Your task to perform on an android device: install app "Booking.com: Hotels and more" Image 0: 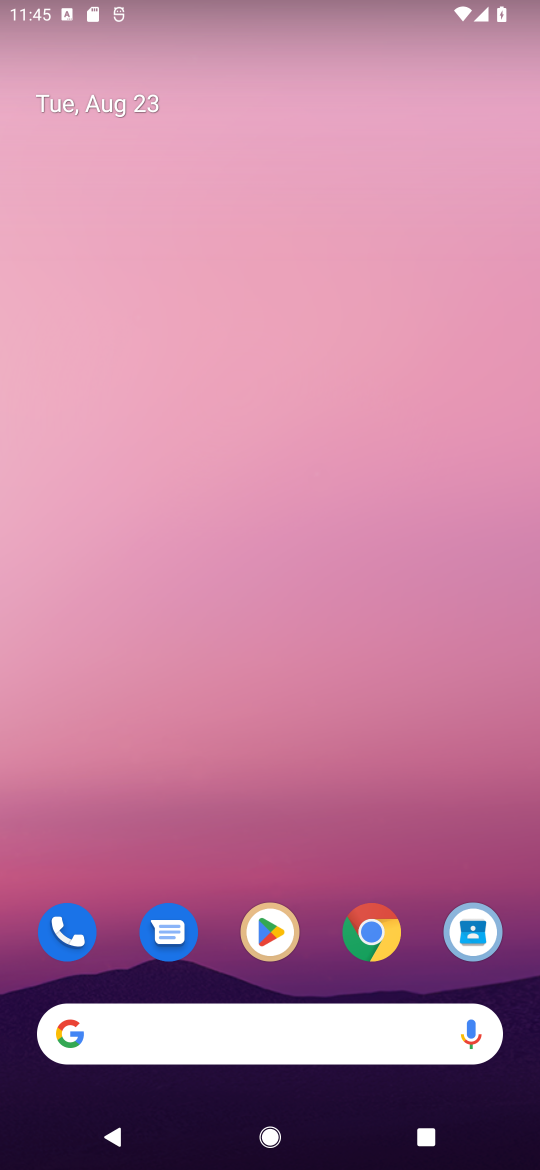
Step 0: click (254, 940)
Your task to perform on an android device: install app "Booking.com: Hotels and more" Image 1: 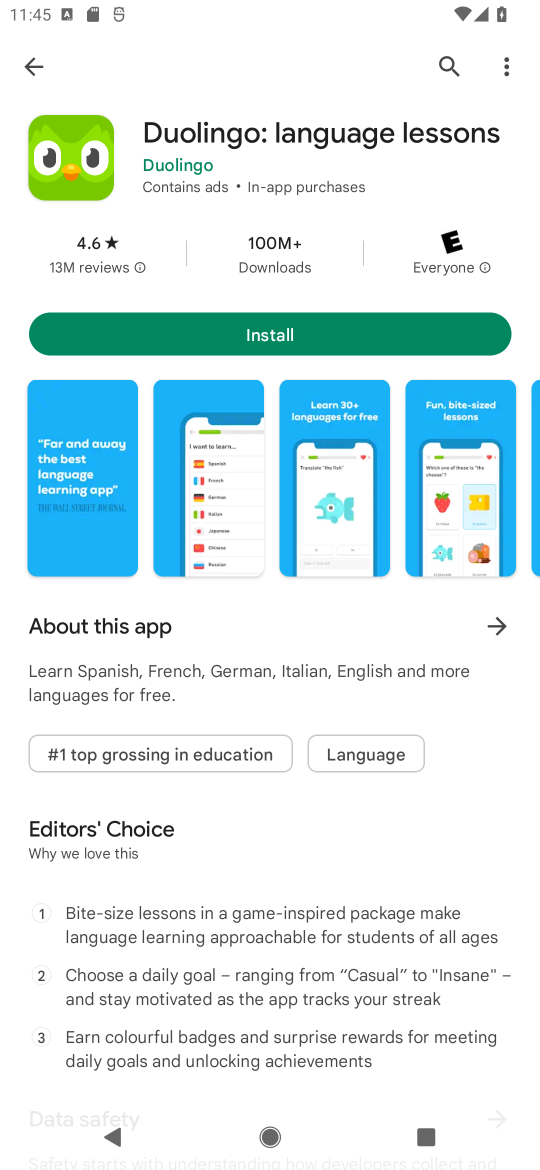
Step 1: click (441, 53)
Your task to perform on an android device: install app "Booking.com: Hotels and more" Image 2: 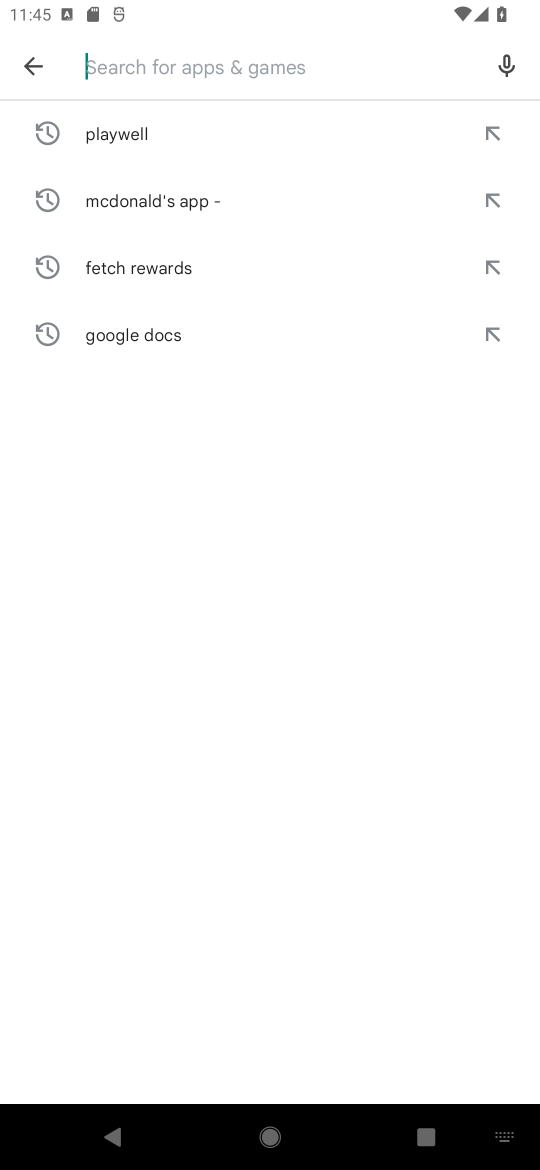
Step 2: click (186, 74)
Your task to perform on an android device: install app "Booking.com: Hotels and more" Image 3: 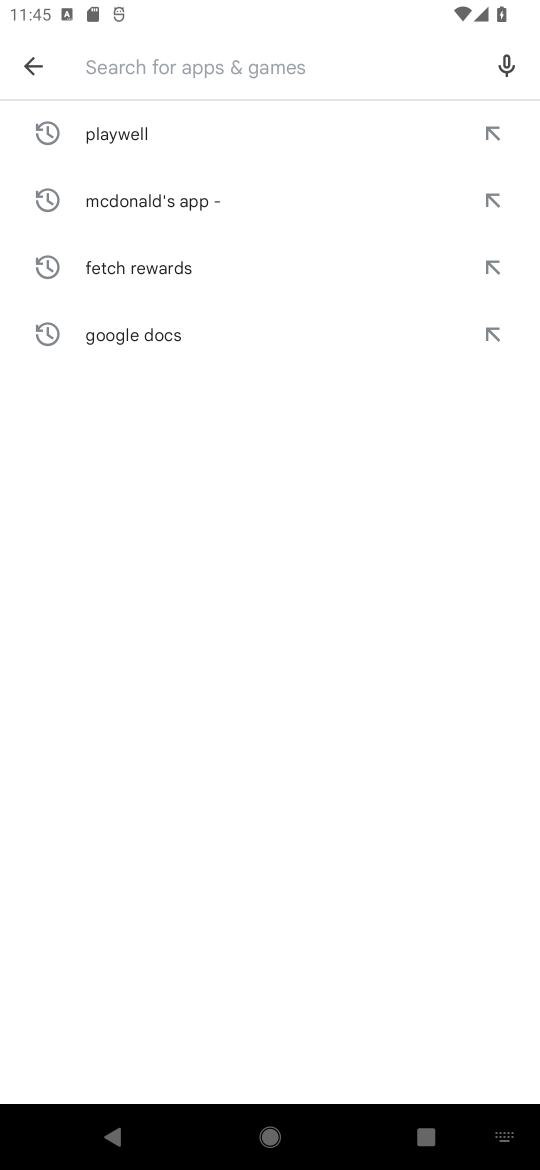
Step 3: type "Booking.com"
Your task to perform on an android device: install app "Booking.com: Hotels and more" Image 4: 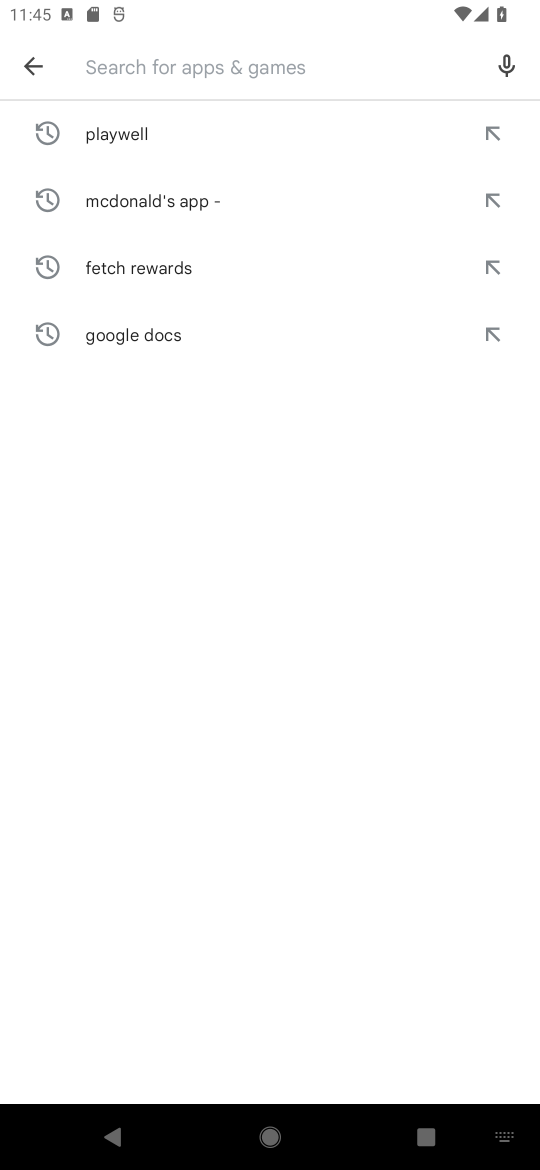
Step 4: click (324, 665)
Your task to perform on an android device: install app "Booking.com: Hotels and more" Image 5: 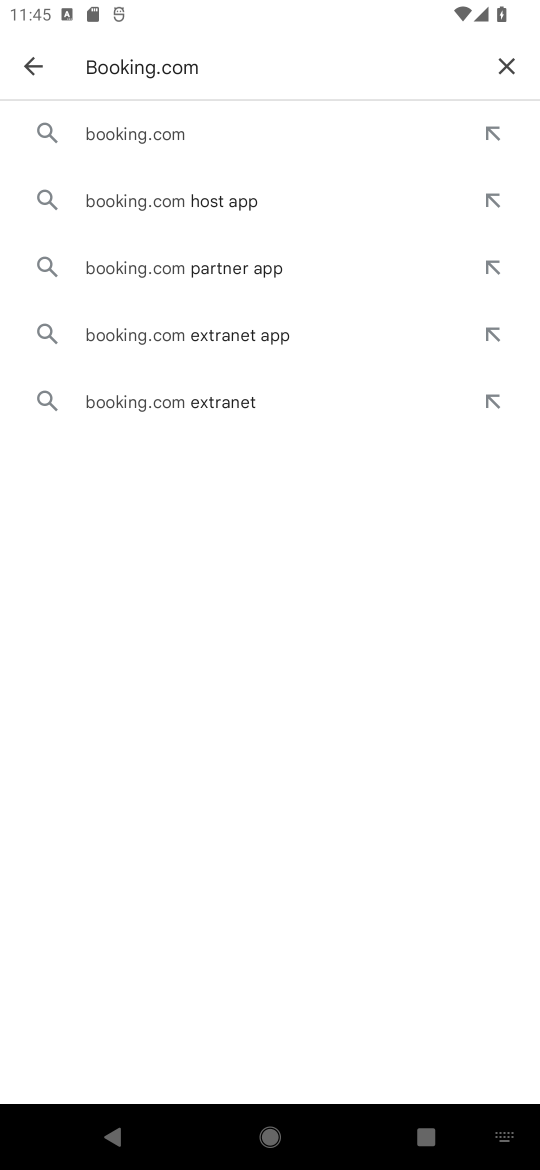
Step 5: click (169, 136)
Your task to perform on an android device: install app "Booking.com: Hotels and more" Image 6: 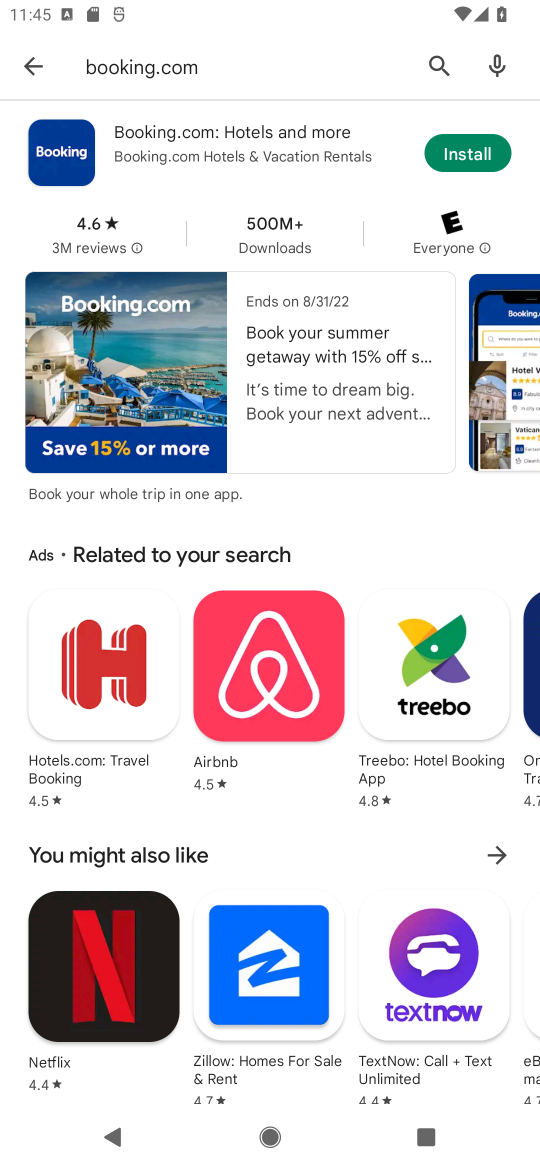
Step 6: click (470, 153)
Your task to perform on an android device: install app "Booking.com: Hotels and more" Image 7: 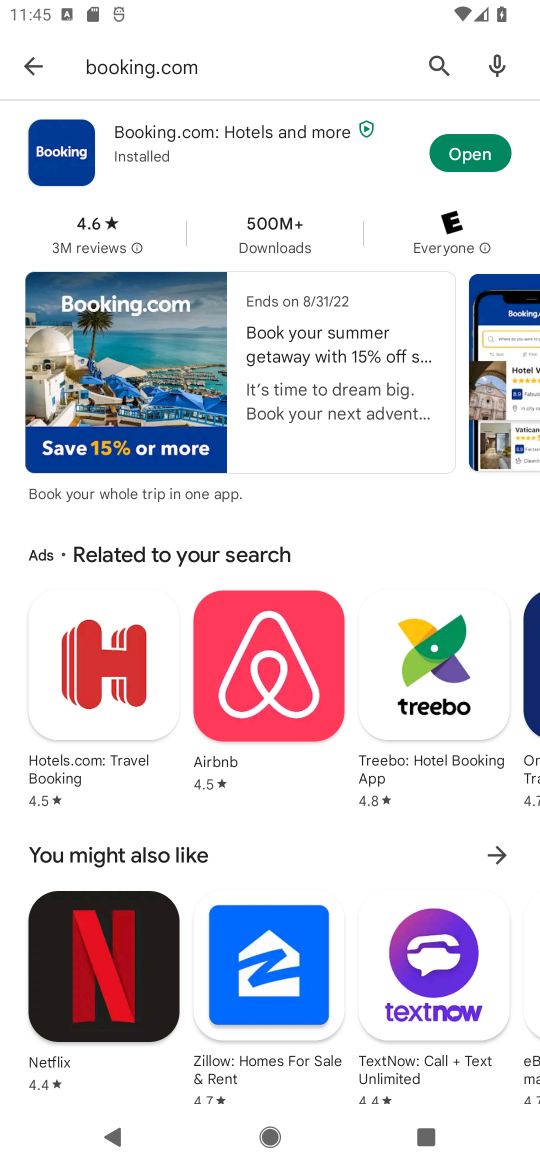
Step 7: click (466, 154)
Your task to perform on an android device: install app "Booking.com: Hotels and more" Image 8: 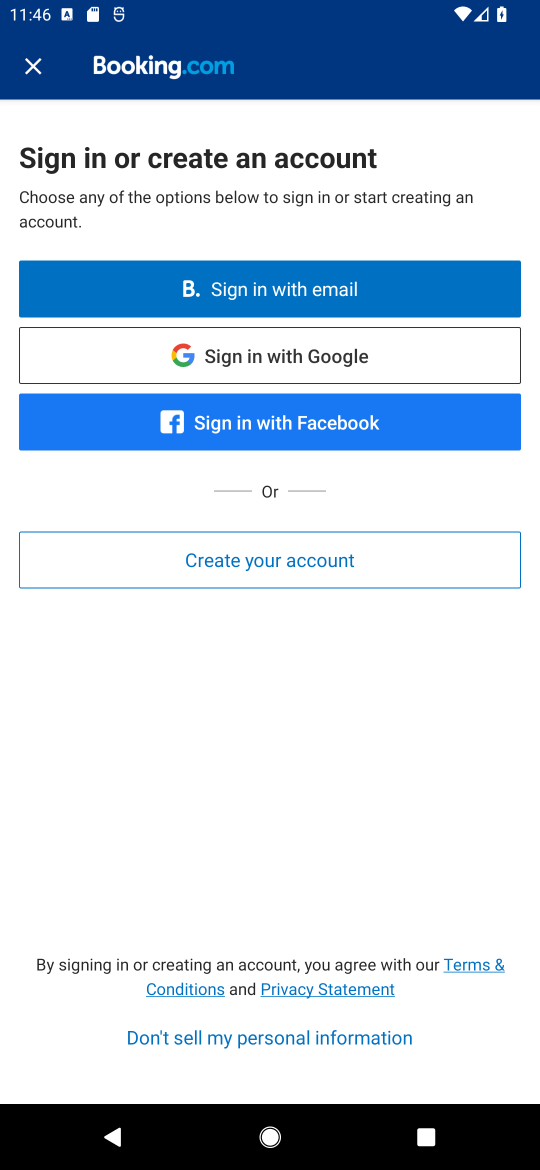
Step 8: task complete